Your task to perform on an android device: Show me the alarms in the clock app Image 0: 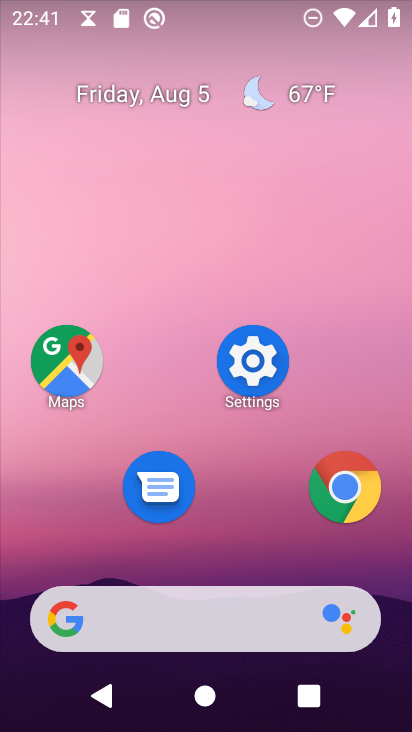
Step 0: press home button
Your task to perform on an android device: Show me the alarms in the clock app Image 1: 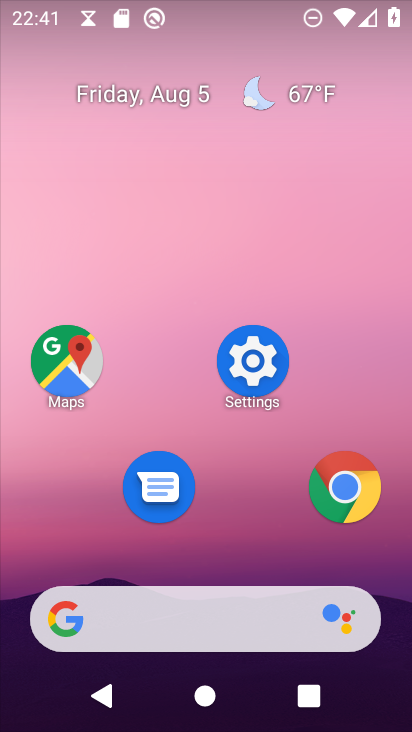
Step 1: drag from (210, 613) to (282, 28)
Your task to perform on an android device: Show me the alarms in the clock app Image 2: 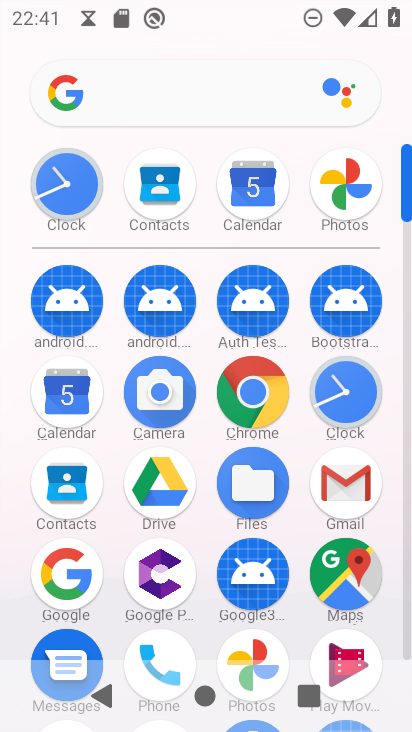
Step 2: click (65, 195)
Your task to perform on an android device: Show me the alarms in the clock app Image 3: 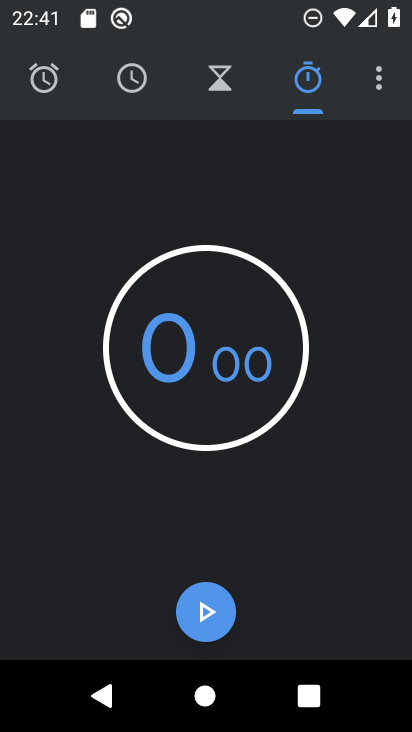
Step 3: click (48, 78)
Your task to perform on an android device: Show me the alarms in the clock app Image 4: 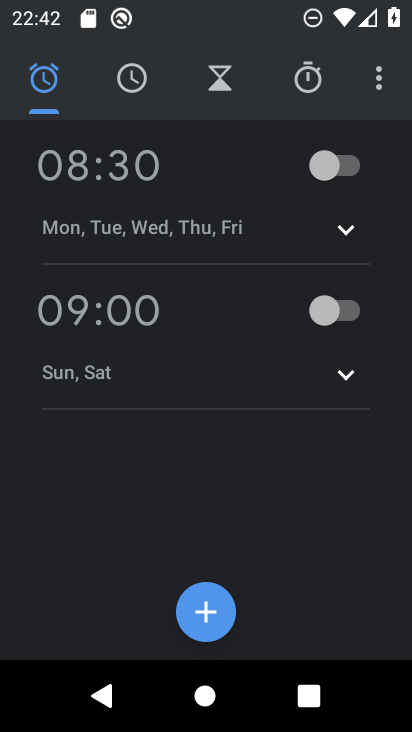
Step 4: task complete